Your task to perform on an android device: Show me recent news Image 0: 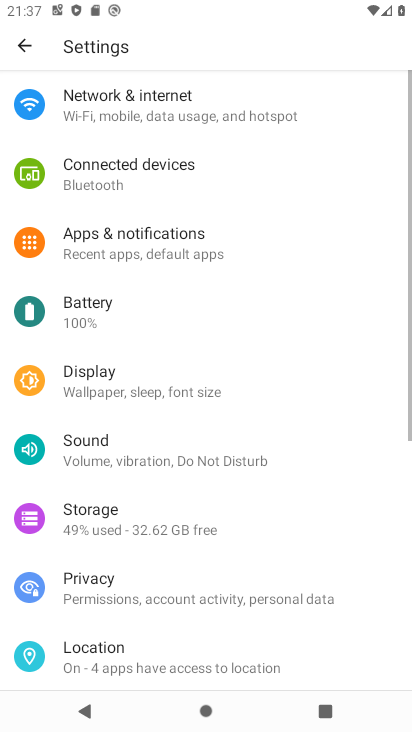
Step 0: press home button
Your task to perform on an android device: Show me recent news Image 1: 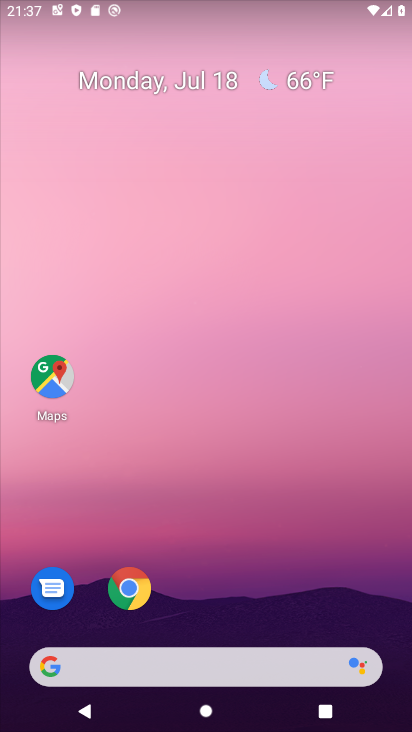
Step 1: click (151, 654)
Your task to perform on an android device: Show me recent news Image 2: 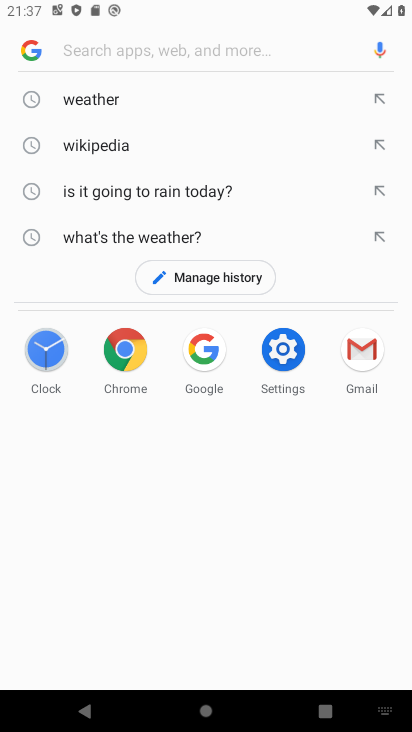
Step 2: type "recent news"
Your task to perform on an android device: Show me recent news Image 3: 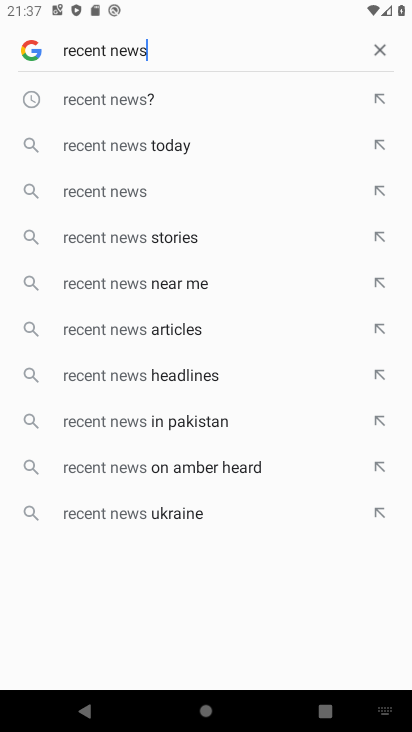
Step 3: click (122, 100)
Your task to perform on an android device: Show me recent news Image 4: 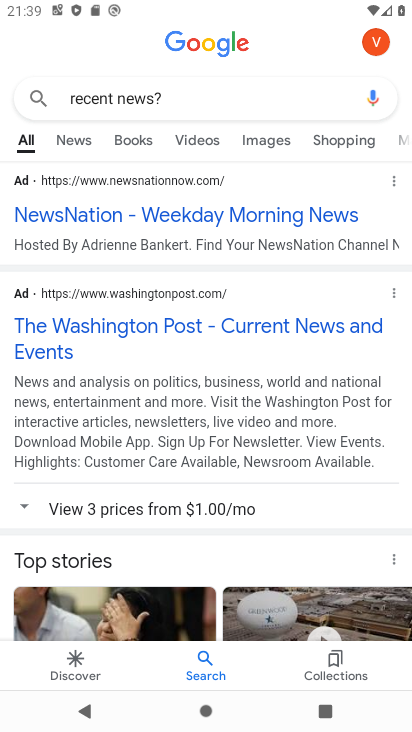
Step 4: click (72, 141)
Your task to perform on an android device: Show me recent news Image 5: 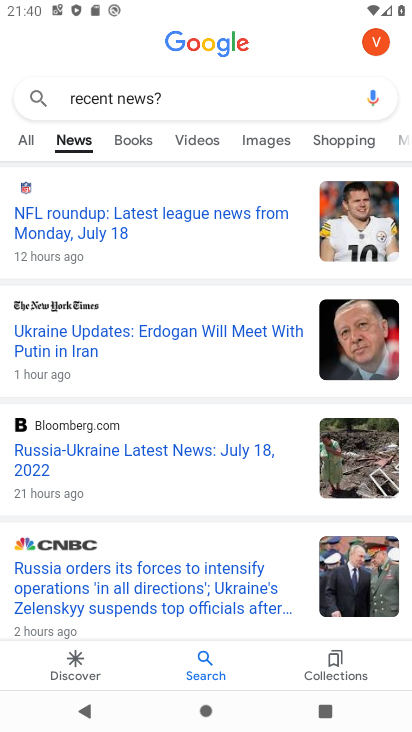
Step 5: task complete